Your task to perform on an android device: Open the calendar app, open the side menu, and click the "Day" option Image 0: 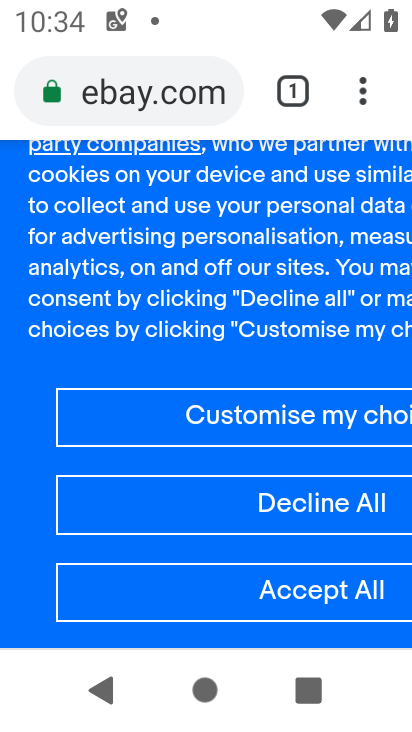
Step 0: press home button
Your task to perform on an android device: Open the calendar app, open the side menu, and click the "Day" option Image 1: 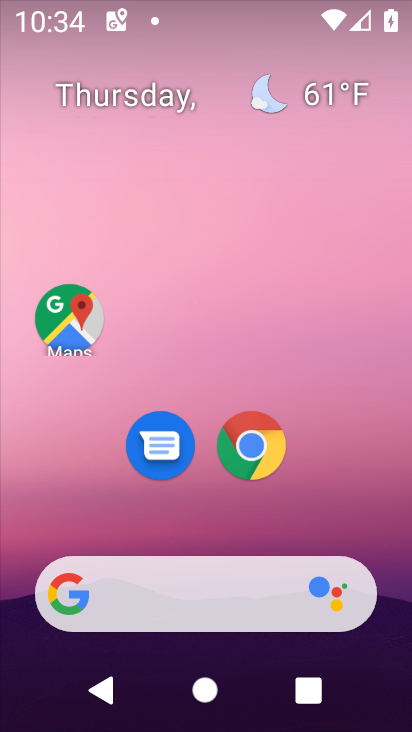
Step 1: drag from (200, 527) to (165, 0)
Your task to perform on an android device: Open the calendar app, open the side menu, and click the "Day" option Image 2: 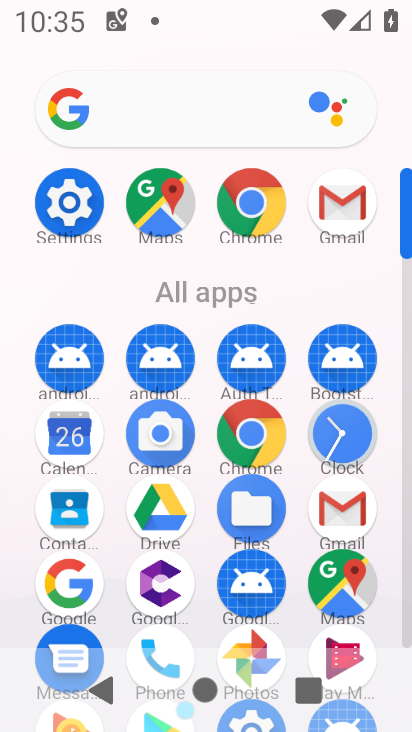
Step 2: click (70, 433)
Your task to perform on an android device: Open the calendar app, open the side menu, and click the "Day" option Image 3: 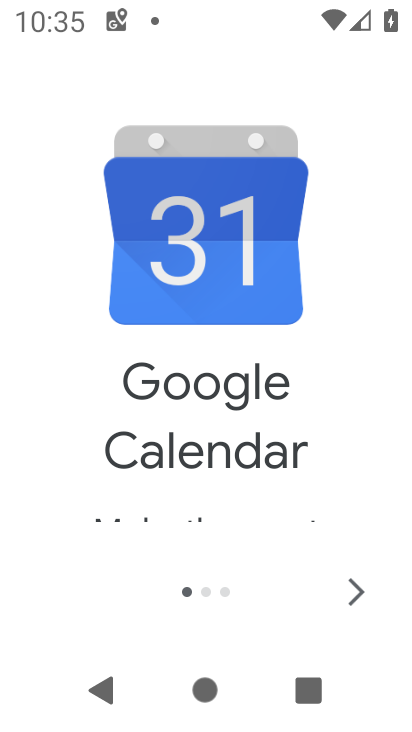
Step 3: click (349, 578)
Your task to perform on an android device: Open the calendar app, open the side menu, and click the "Day" option Image 4: 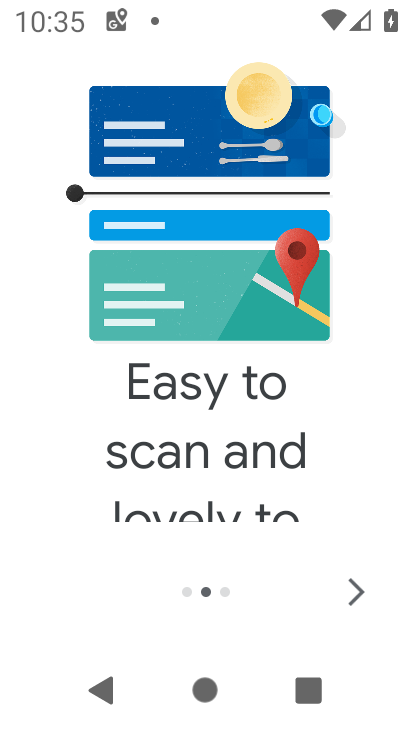
Step 4: click (347, 573)
Your task to perform on an android device: Open the calendar app, open the side menu, and click the "Day" option Image 5: 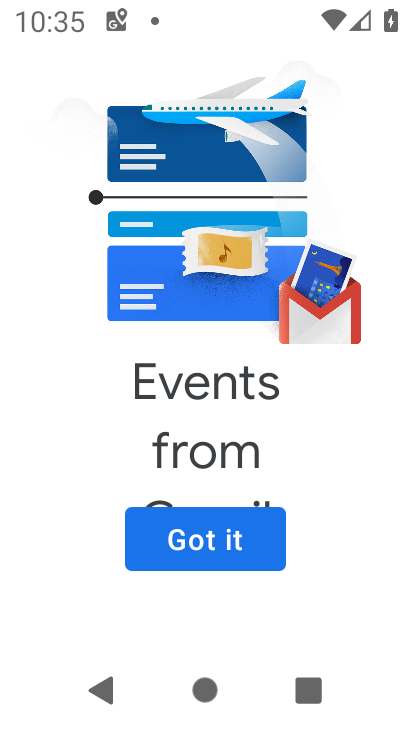
Step 5: click (179, 551)
Your task to perform on an android device: Open the calendar app, open the side menu, and click the "Day" option Image 6: 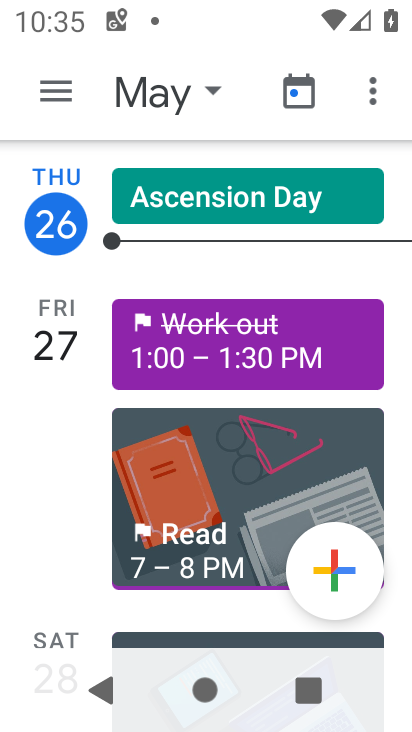
Step 6: click (64, 87)
Your task to perform on an android device: Open the calendar app, open the side menu, and click the "Day" option Image 7: 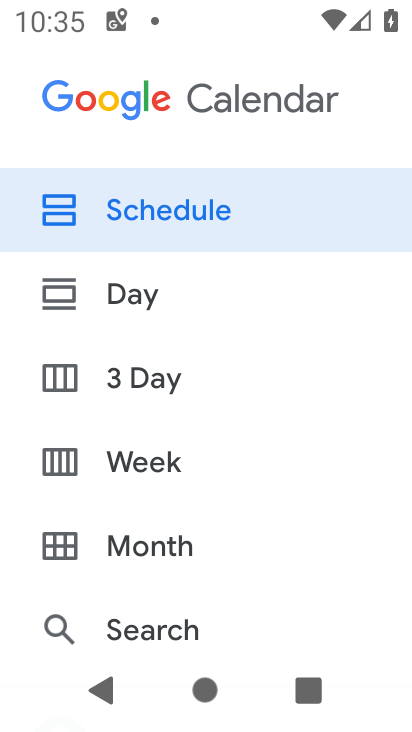
Step 7: click (131, 284)
Your task to perform on an android device: Open the calendar app, open the side menu, and click the "Day" option Image 8: 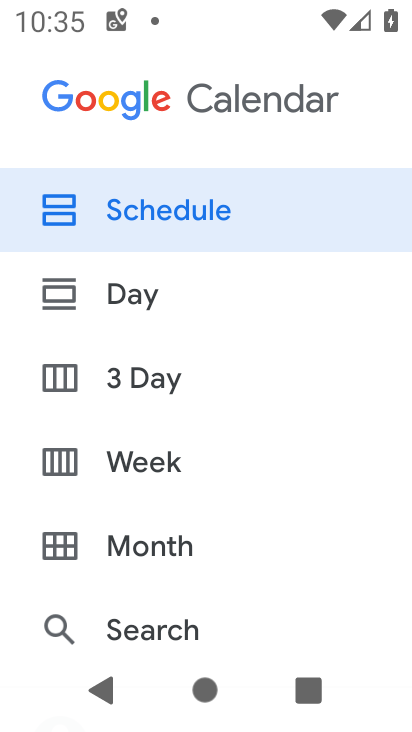
Step 8: click (135, 296)
Your task to perform on an android device: Open the calendar app, open the side menu, and click the "Day" option Image 9: 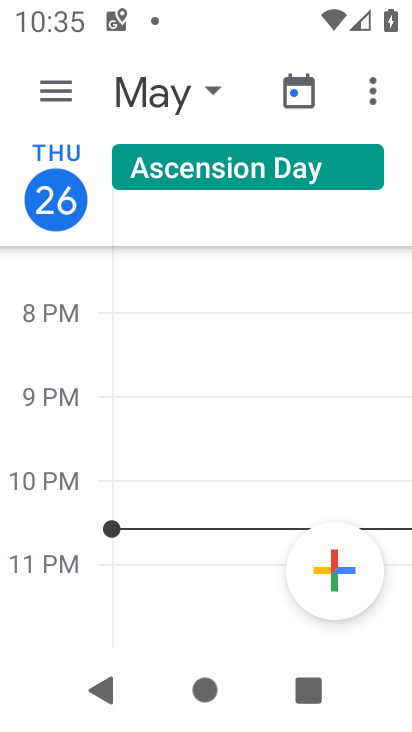
Step 9: task complete